Your task to perform on an android device: Open Yahoo.com Image 0: 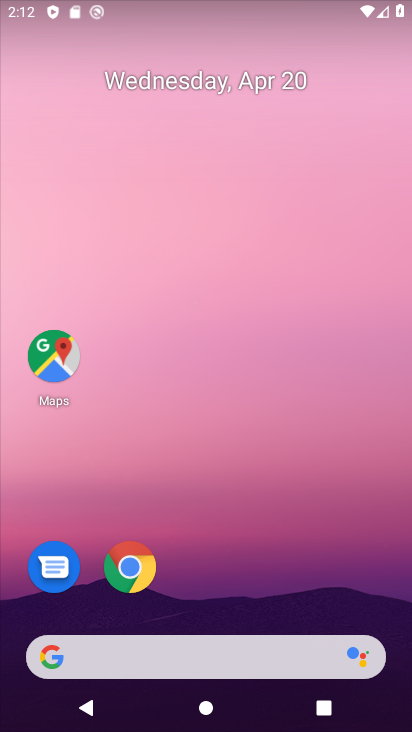
Step 0: drag from (190, 660) to (231, 152)
Your task to perform on an android device: Open Yahoo.com Image 1: 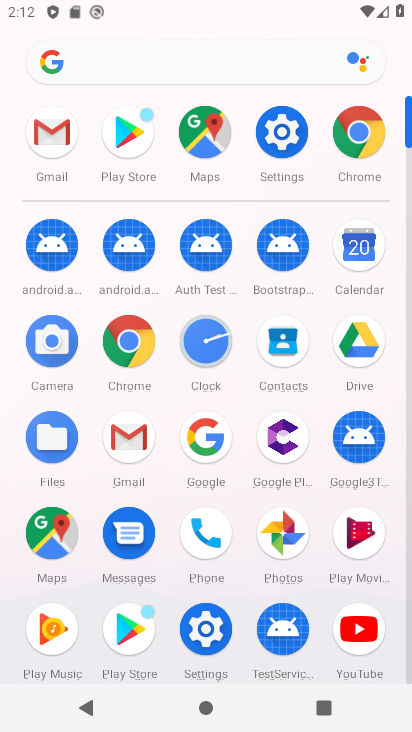
Step 1: click (358, 143)
Your task to perform on an android device: Open Yahoo.com Image 2: 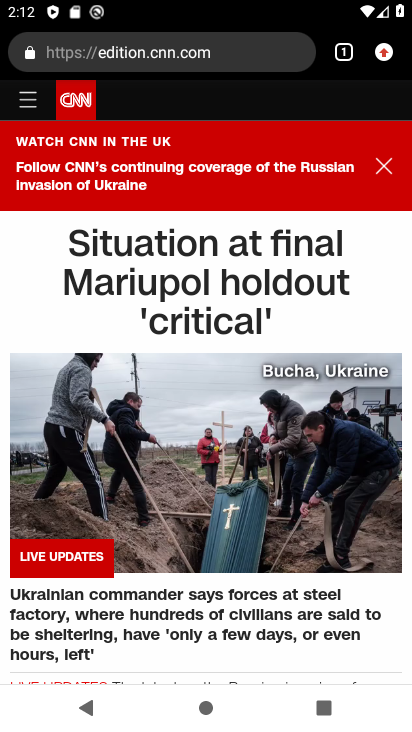
Step 2: click (218, 68)
Your task to perform on an android device: Open Yahoo.com Image 3: 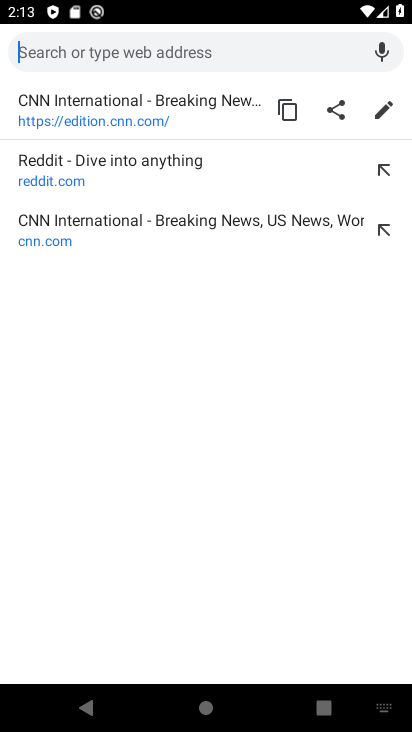
Step 3: type "yahoo.com"
Your task to perform on an android device: Open Yahoo.com Image 4: 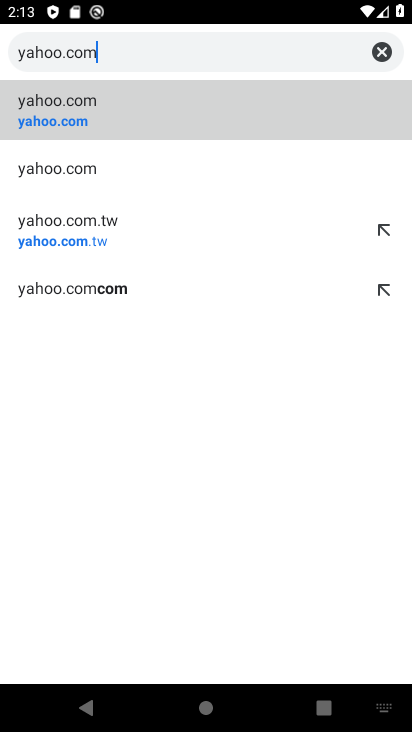
Step 4: click (116, 104)
Your task to perform on an android device: Open Yahoo.com Image 5: 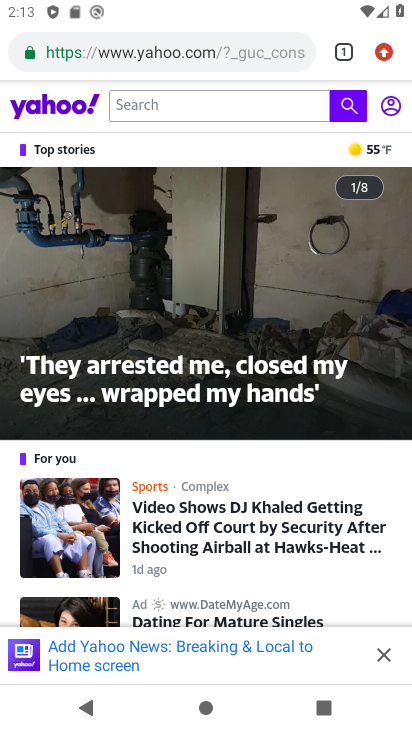
Step 5: task complete